Your task to perform on an android device: toggle location history Image 0: 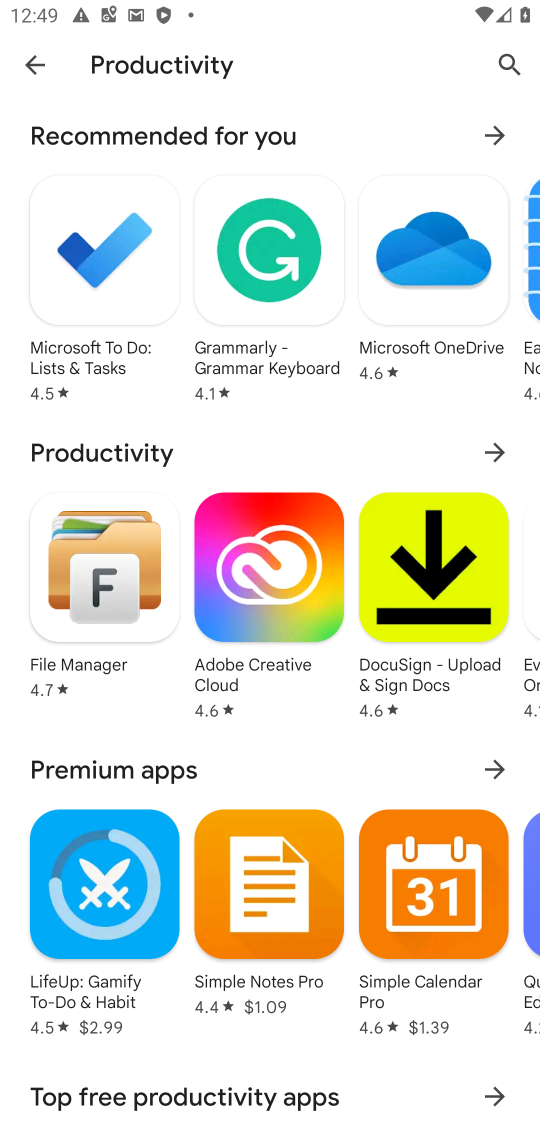
Step 0: press home button
Your task to perform on an android device: toggle location history Image 1: 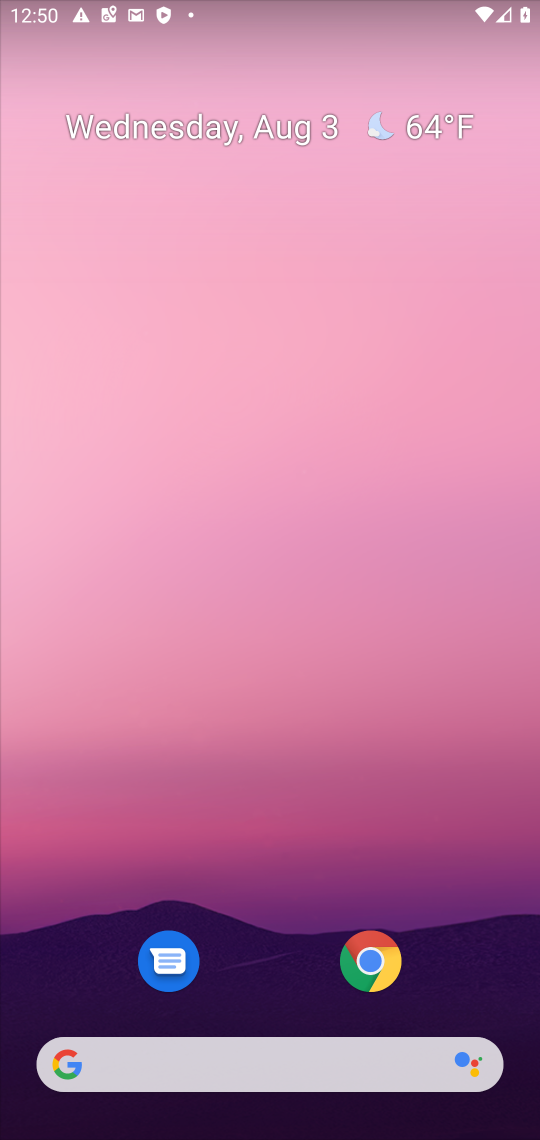
Step 1: drag from (275, 979) to (254, 12)
Your task to perform on an android device: toggle location history Image 2: 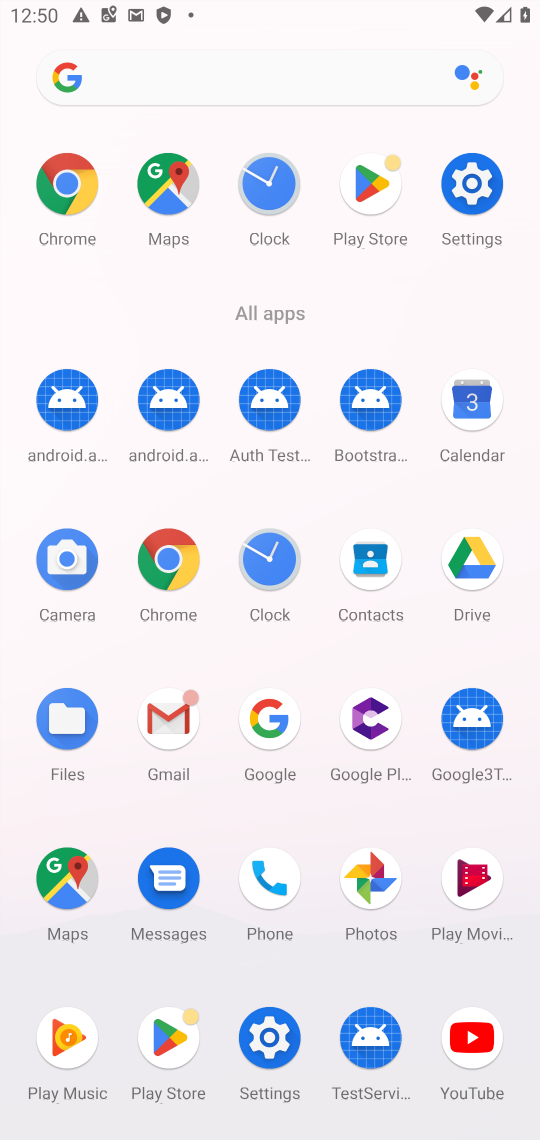
Step 2: click (166, 183)
Your task to perform on an android device: toggle location history Image 3: 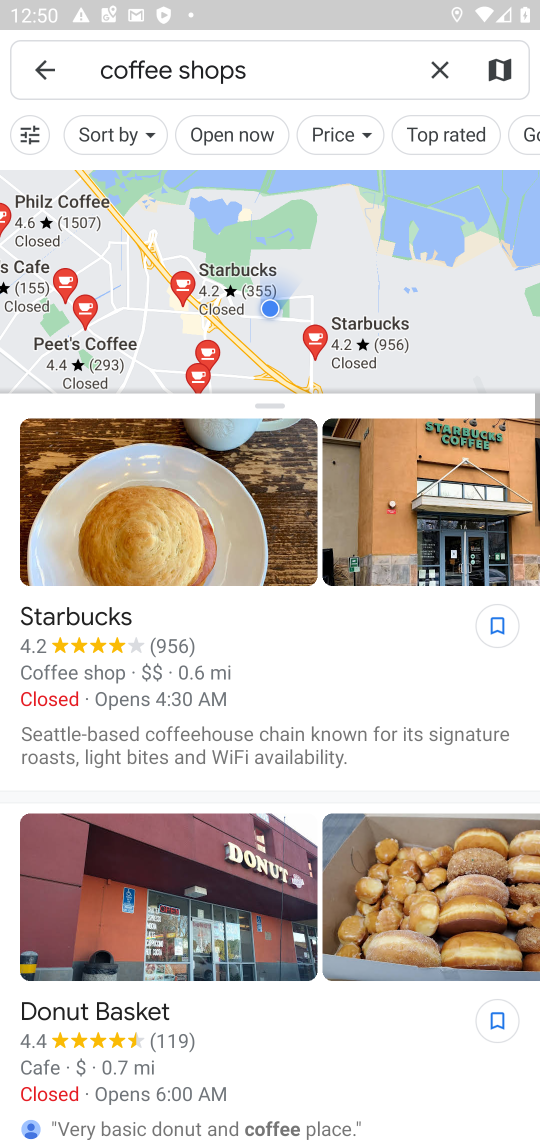
Step 3: click (433, 79)
Your task to perform on an android device: toggle location history Image 4: 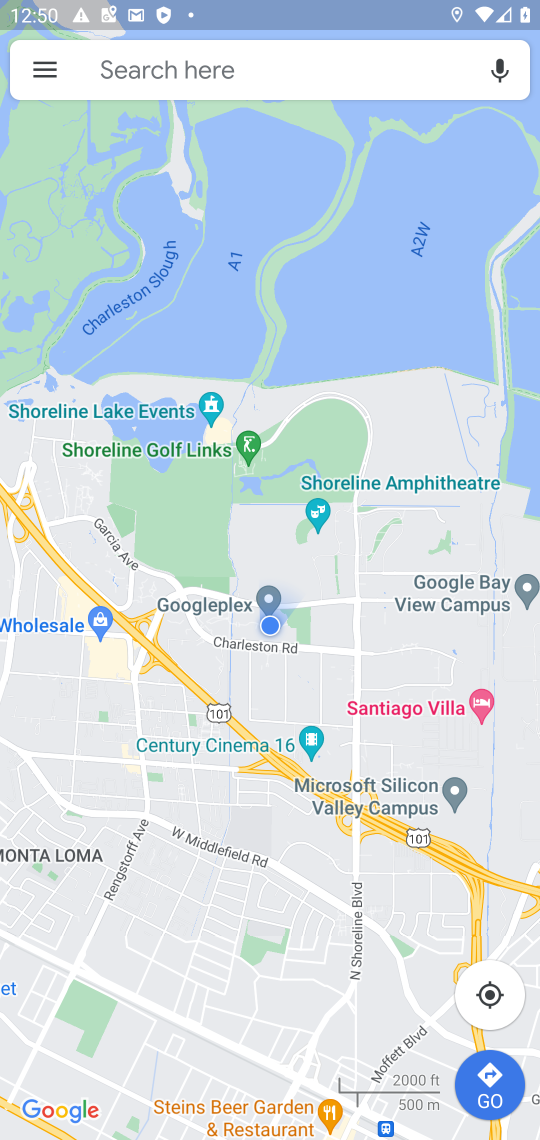
Step 4: click (248, 68)
Your task to perform on an android device: toggle location history Image 5: 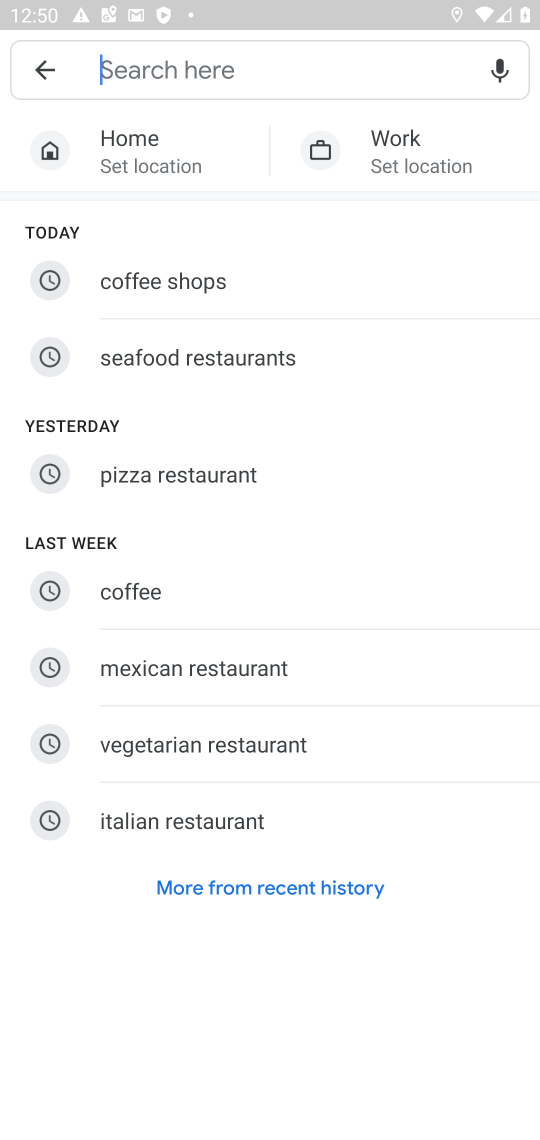
Step 5: click (43, 74)
Your task to perform on an android device: toggle location history Image 6: 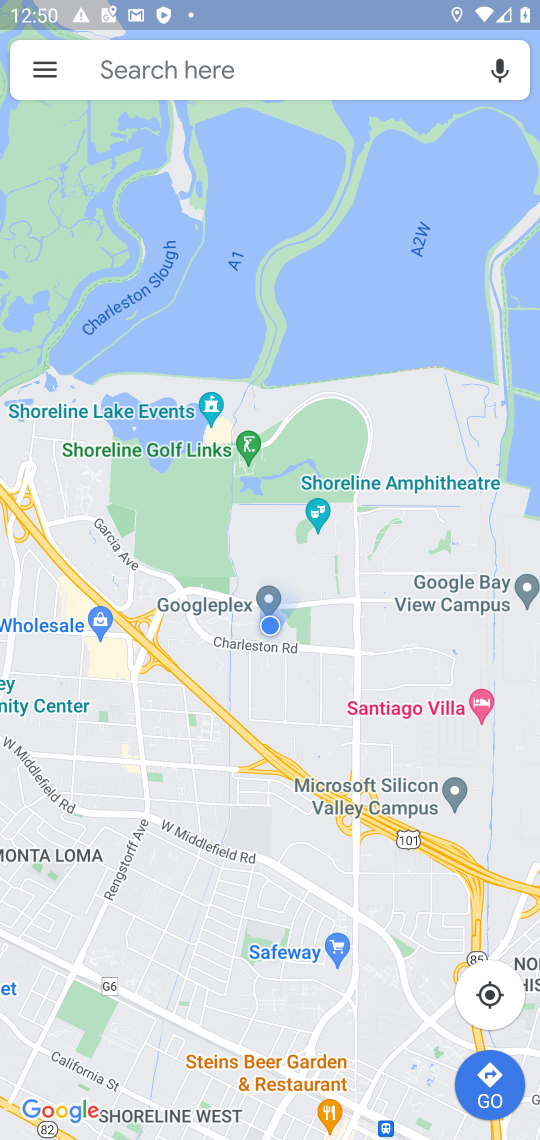
Step 6: click (43, 74)
Your task to perform on an android device: toggle location history Image 7: 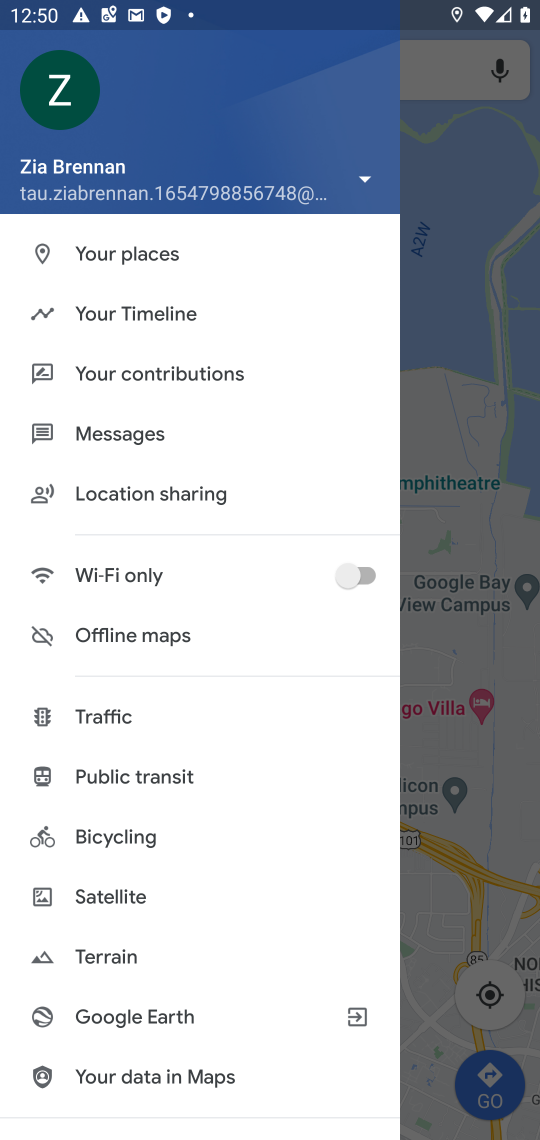
Step 7: click (121, 309)
Your task to perform on an android device: toggle location history Image 8: 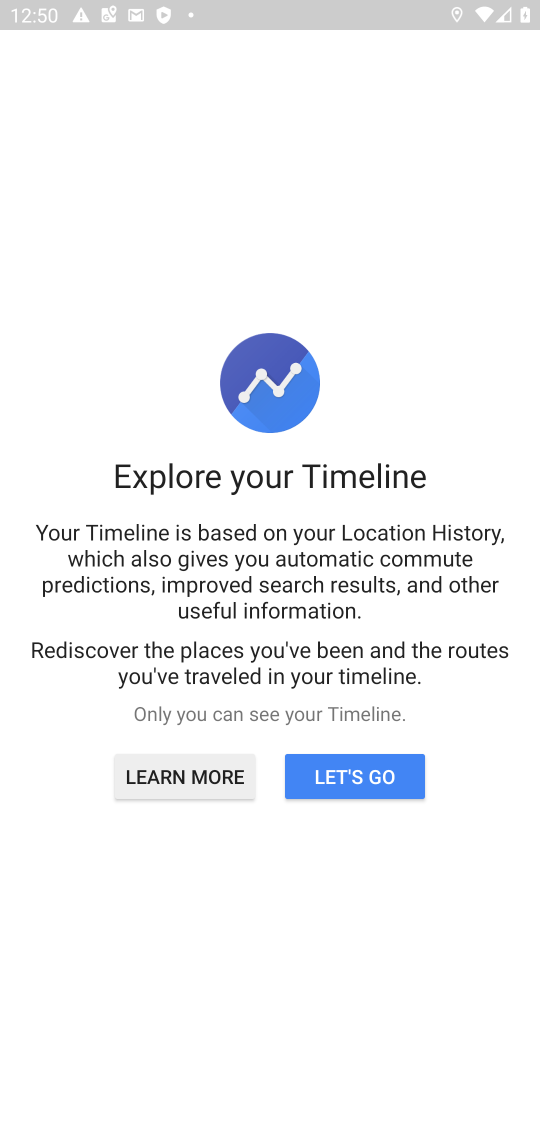
Step 8: click (334, 785)
Your task to perform on an android device: toggle location history Image 9: 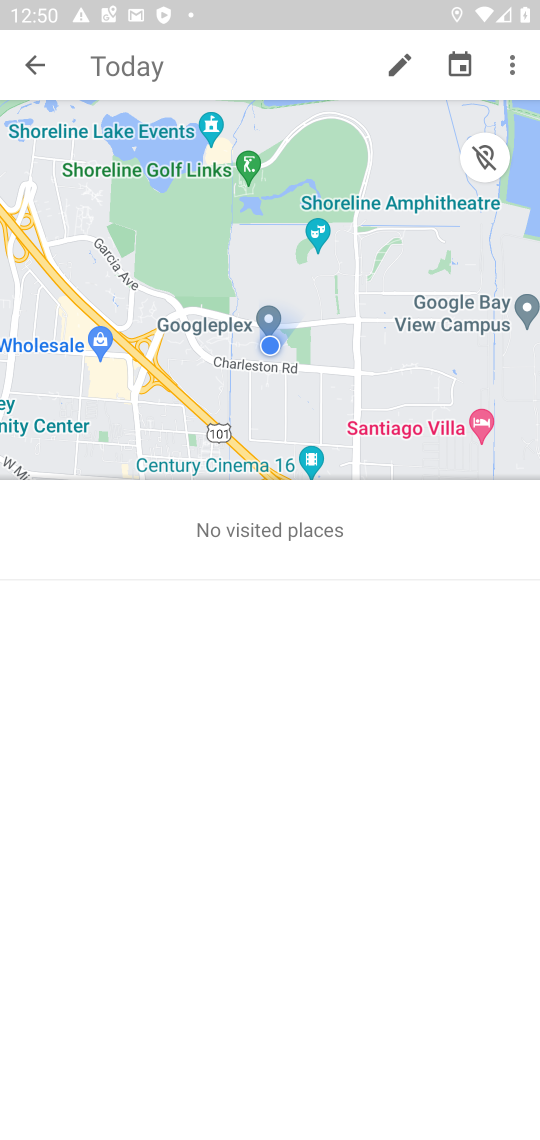
Step 9: click (510, 63)
Your task to perform on an android device: toggle location history Image 10: 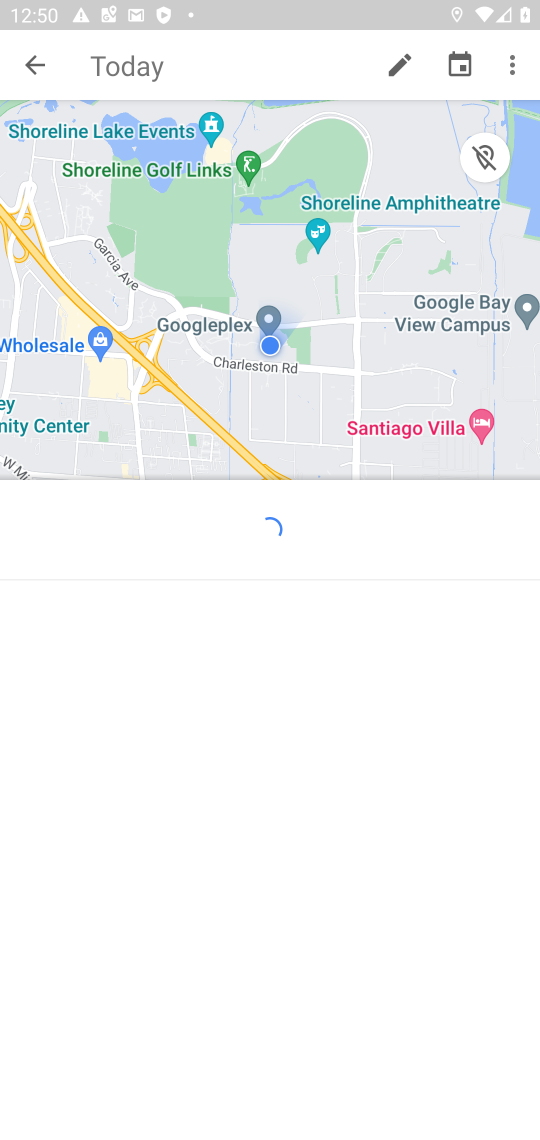
Step 10: click (420, 422)
Your task to perform on an android device: toggle location history Image 11: 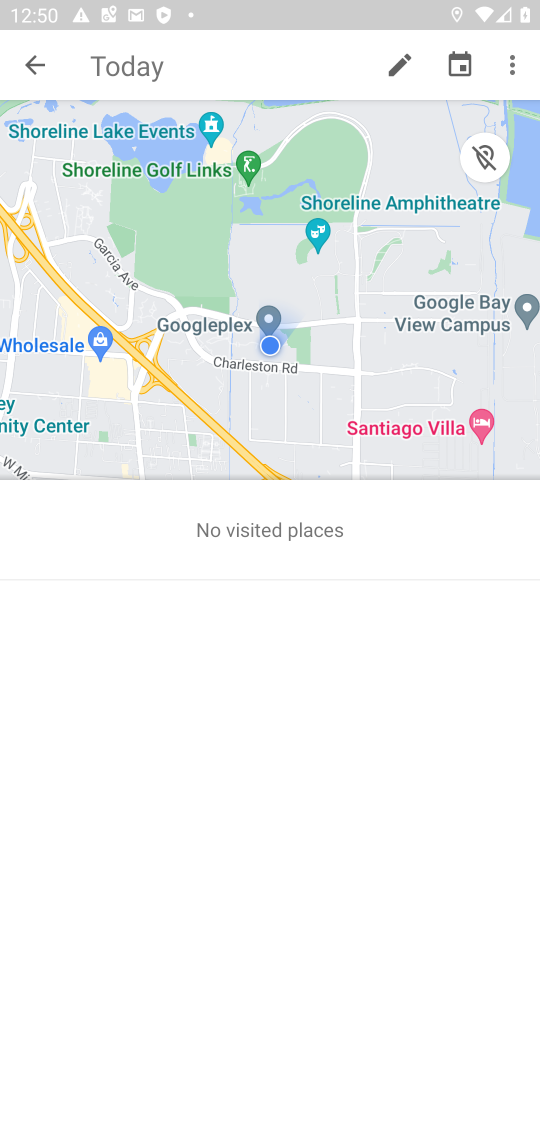
Step 11: click (512, 55)
Your task to perform on an android device: toggle location history Image 12: 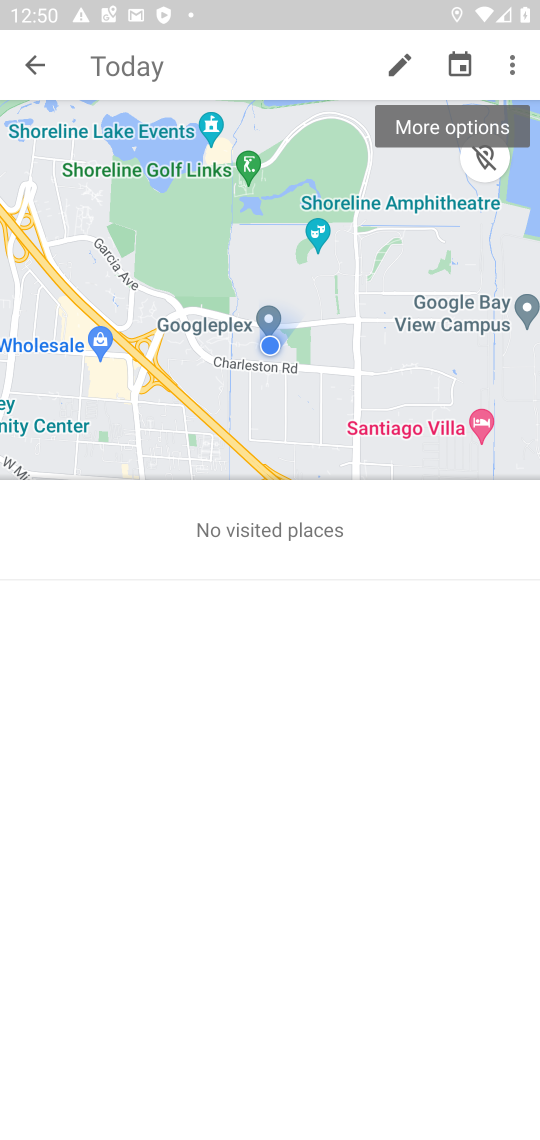
Step 12: click (512, 58)
Your task to perform on an android device: toggle location history Image 13: 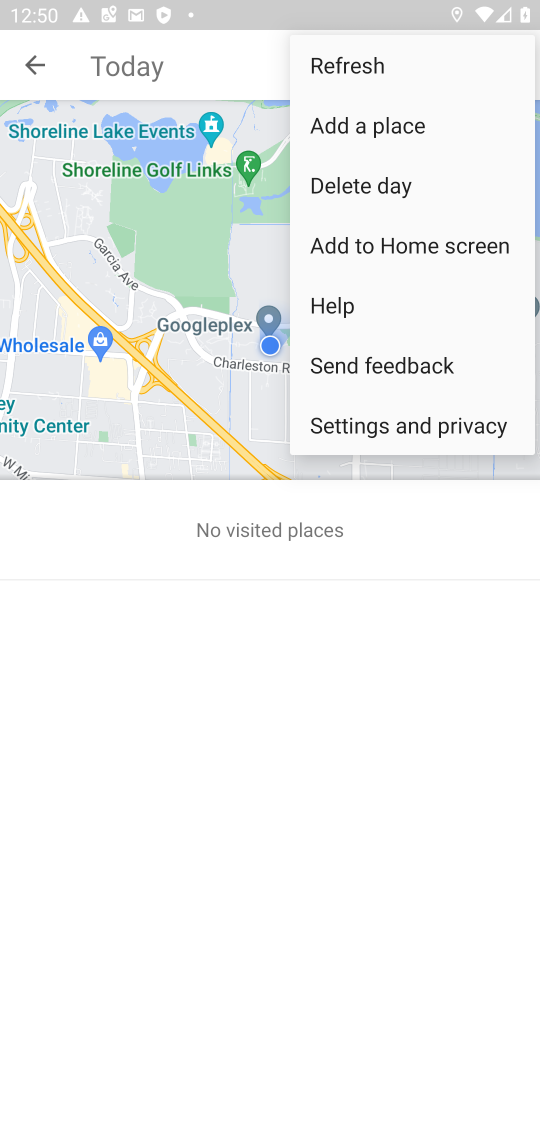
Step 13: click (402, 416)
Your task to perform on an android device: toggle location history Image 14: 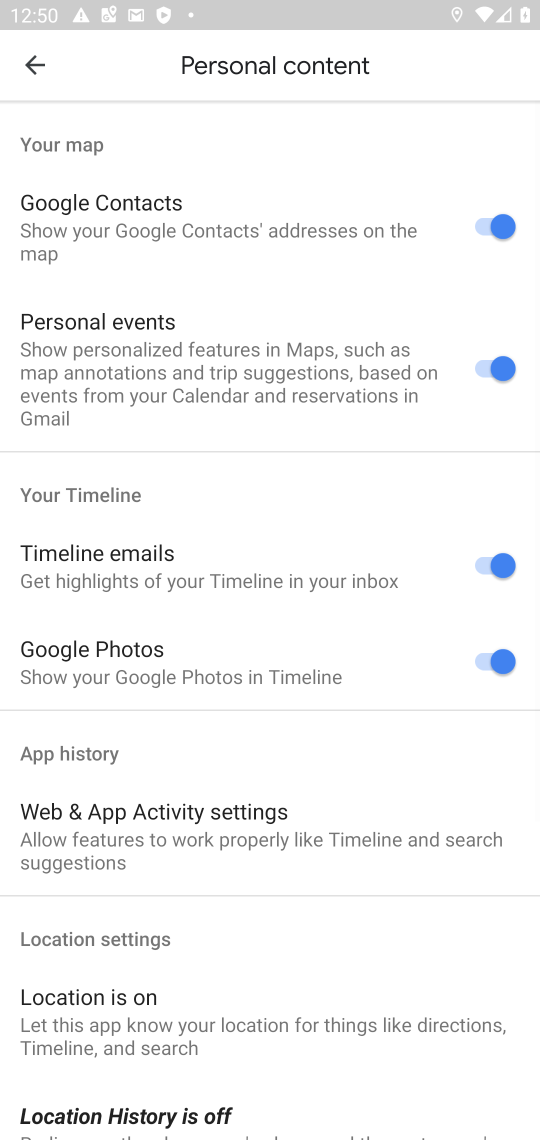
Step 14: drag from (222, 960) to (287, 466)
Your task to perform on an android device: toggle location history Image 15: 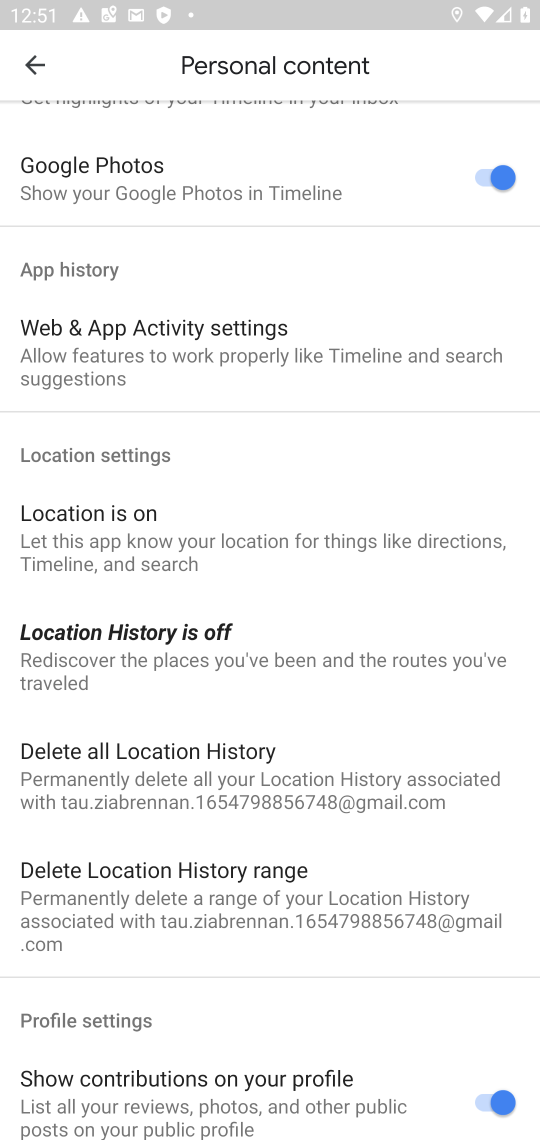
Step 15: click (151, 640)
Your task to perform on an android device: toggle location history Image 16: 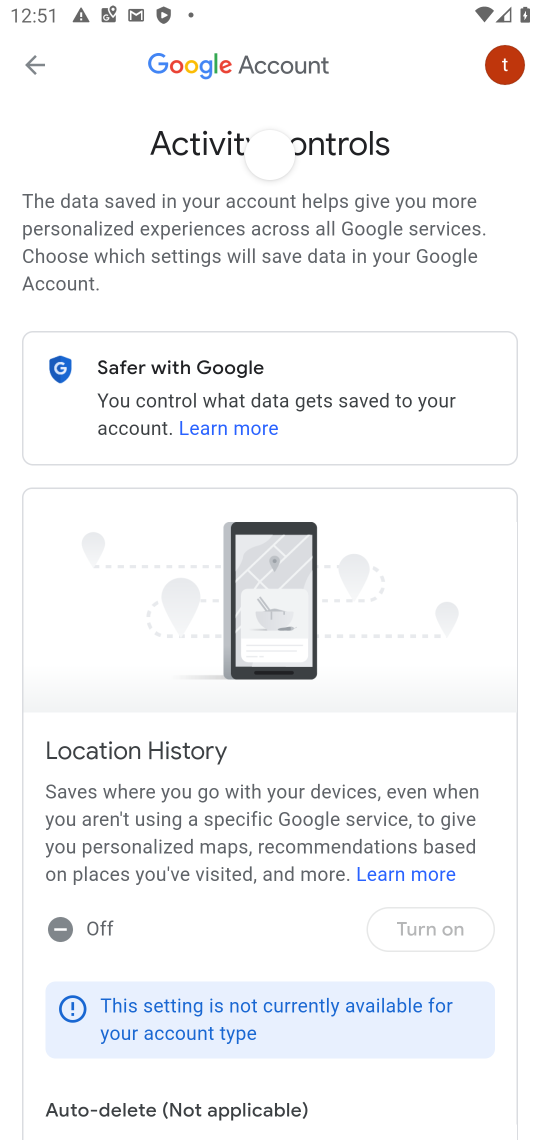
Step 16: drag from (383, 693) to (363, 279)
Your task to perform on an android device: toggle location history Image 17: 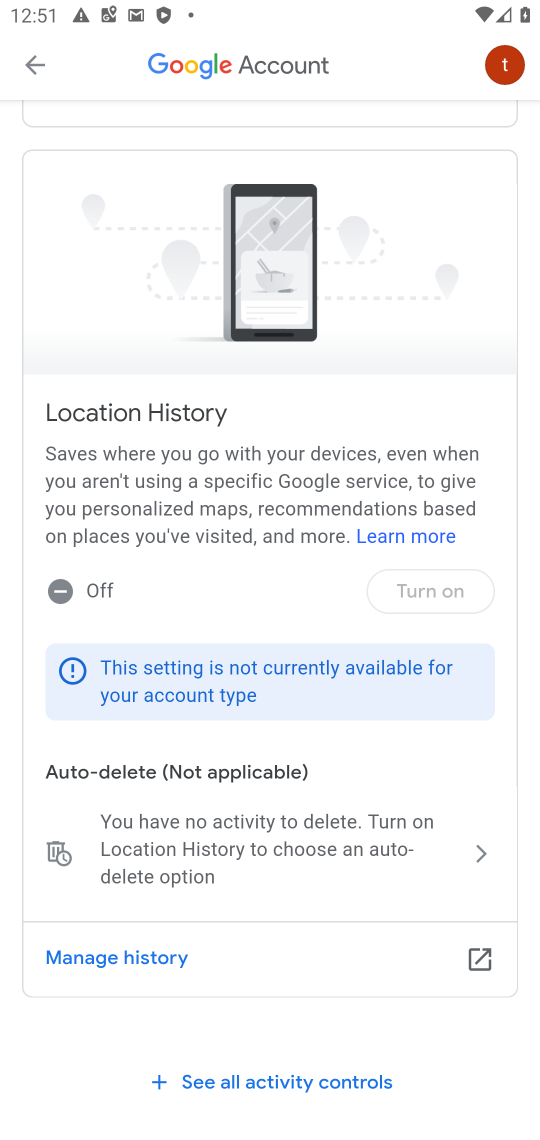
Step 17: click (407, 600)
Your task to perform on an android device: toggle location history Image 18: 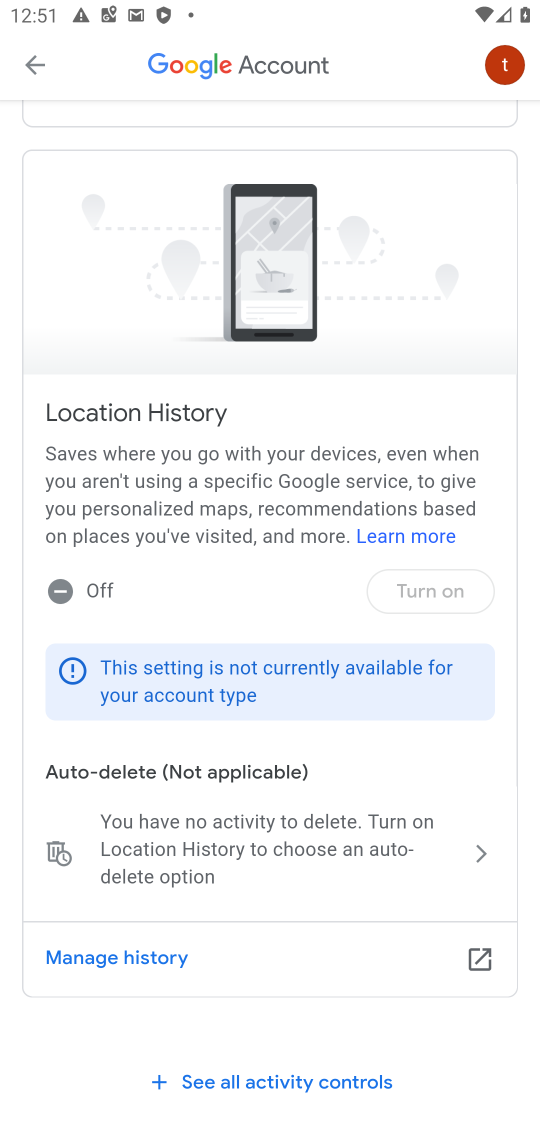
Step 18: click (414, 592)
Your task to perform on an android device: toggle location history Image 19: 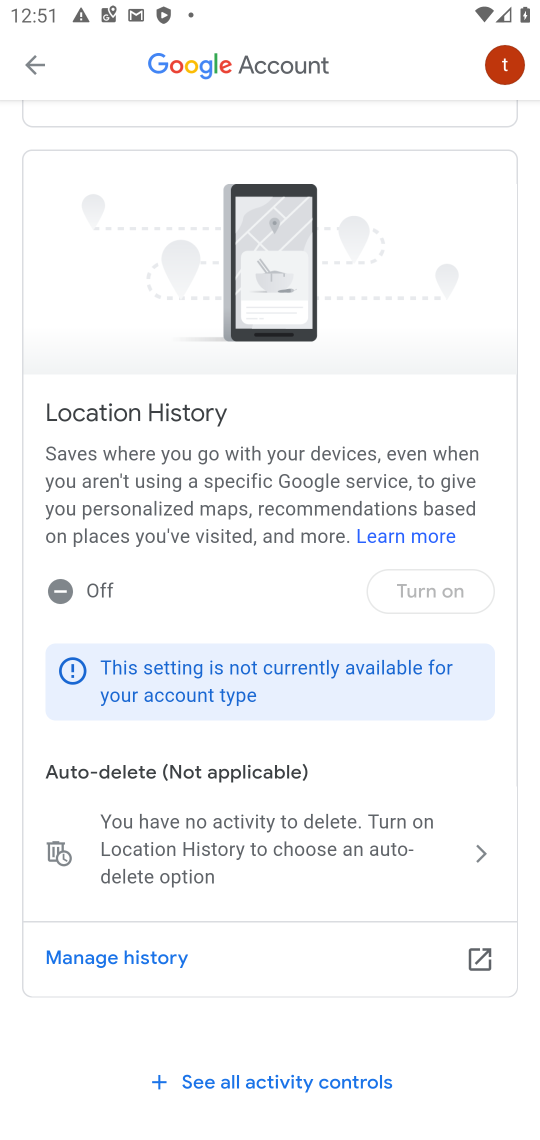
Step 19: click (414, 592)
Your task to perform on an android device: toggle location history Image 20: 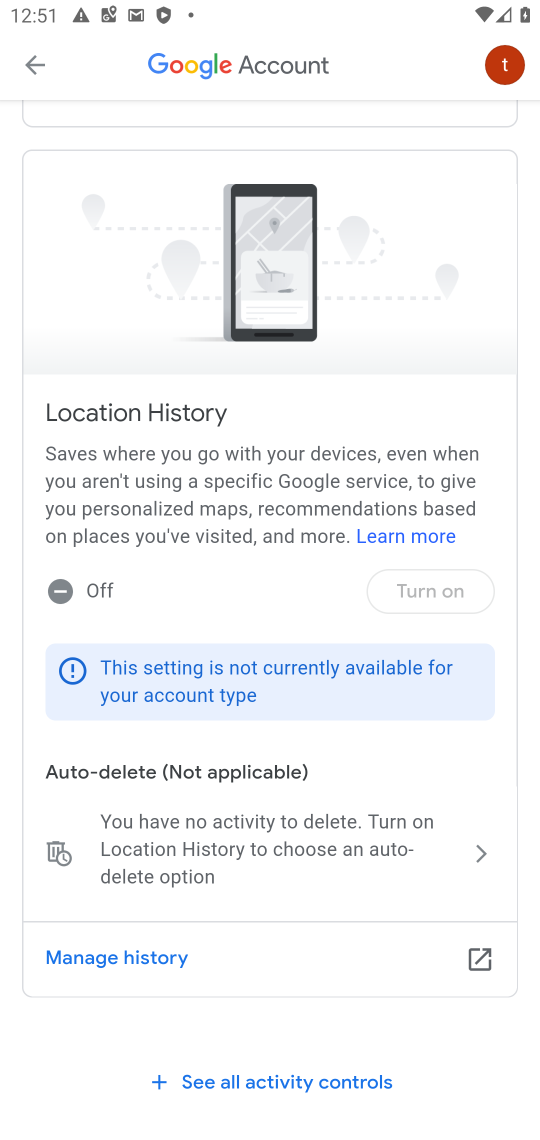
Step 20: task complete